Your task to perform on an android device: What's on my calendar tomorrow? Image 0: 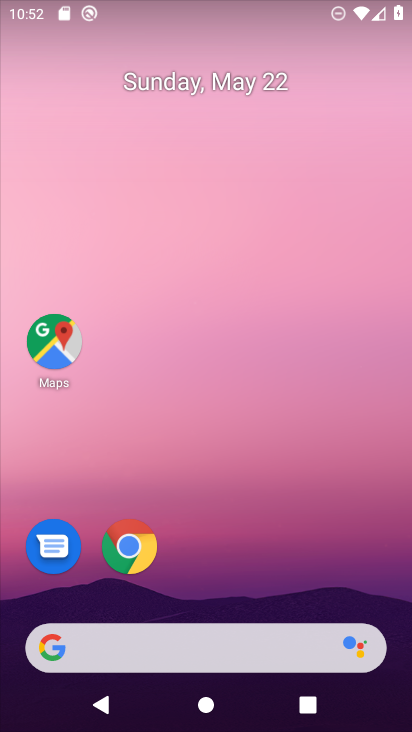
Step 0: drag from (184, 589) to (251, 43)
Your task to perform on an android device: What's on my calendar tomorrow? Image 1: 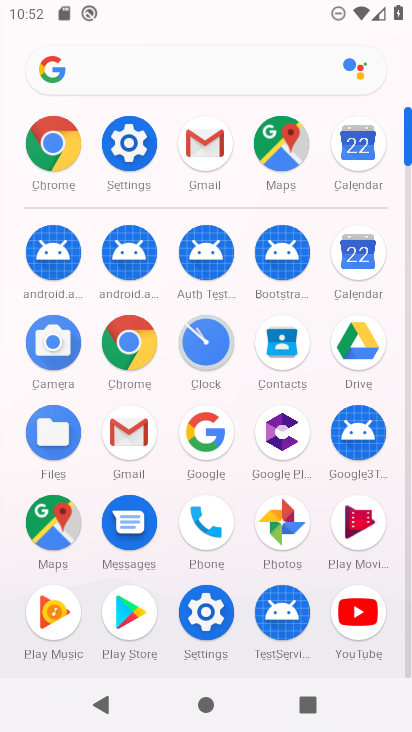
Step 1: click (360, 270)
Your task to perform on an android device: What's on my calendar tomorrow? Image 2: 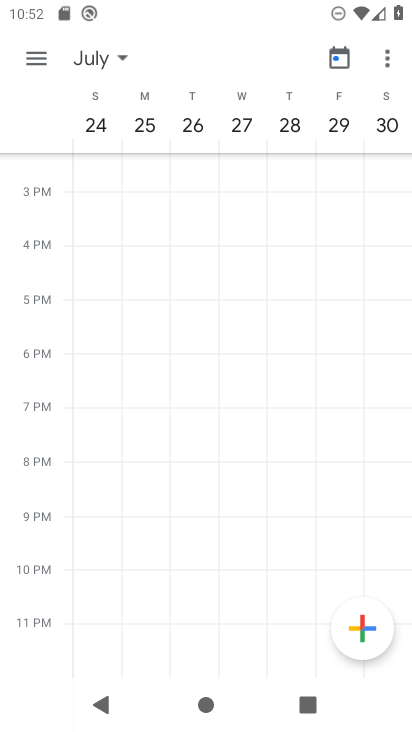
Step 2: drag from (88, 120) to (318, 129)
Your task to perform on an android device: What's on my calendar tomorrow? Image 3: 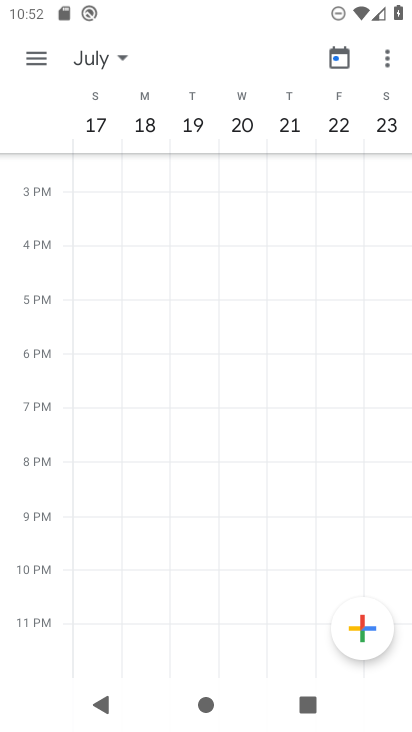
Step 3: click (103, 61)
Your task to perform on an android device: What's on my calendar tomorrow? Image 4: 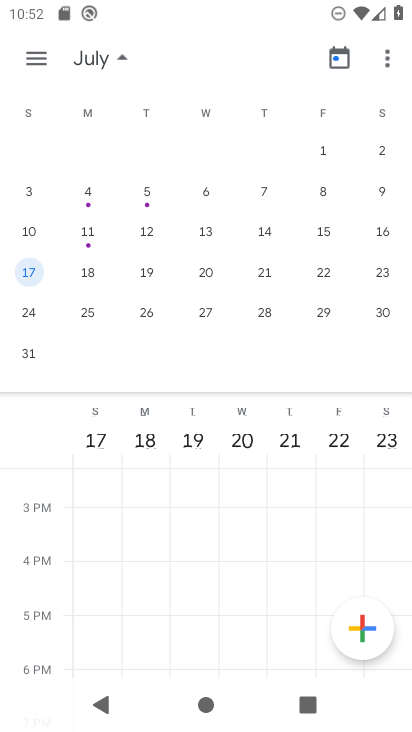
Step 4: drag from (118, 265) to (384, 350)
Your task to perform on an android device: What's on my calendar tomorrow? Image 5: 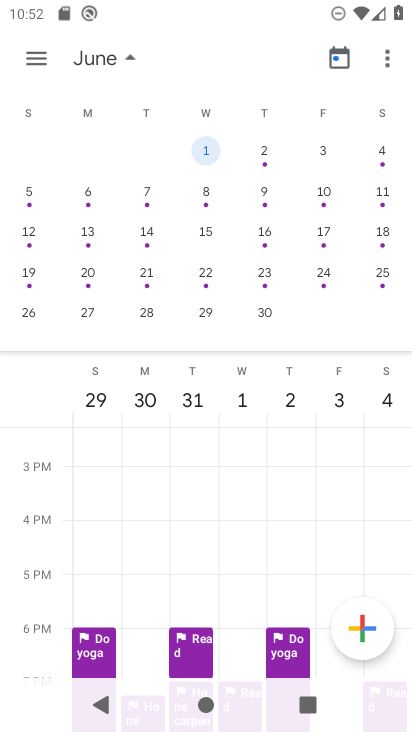
Step 5: drag from (92, 232) to (348, 269)
Your task to perform on an android device: What's on my calendar tomorrow? Image 6: 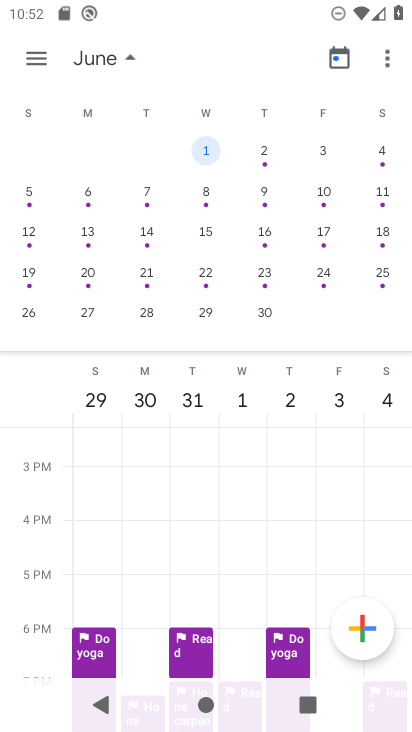
Step 6: drag from (64, 227) to (386, 219)
Your task to perform on an android device: What's on my calendar tomorrow? Image 7: 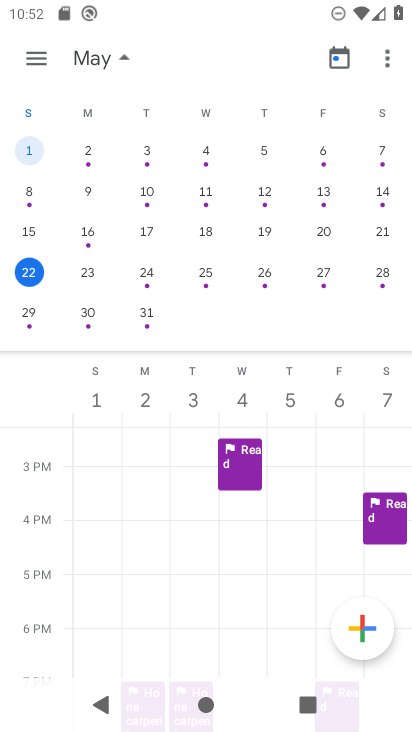
Step 7: click (27, 275)
Your task to perform on an android device: What's on my calendar tomorrow? Image 8: 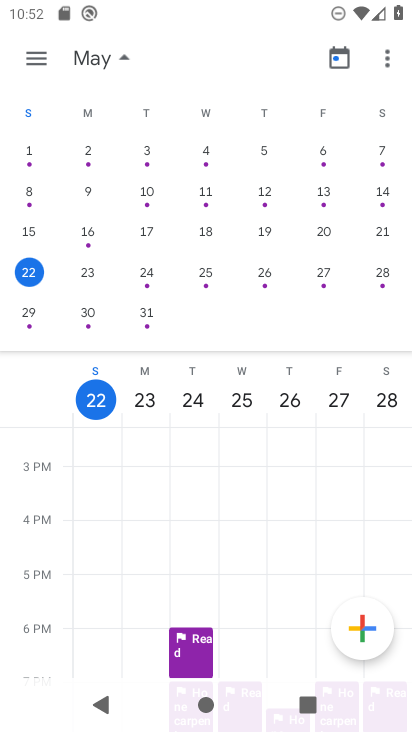
Step 8: click (36, 54)
Your task to perform on an android device: What's on my calendar tomorrow? Image 9: 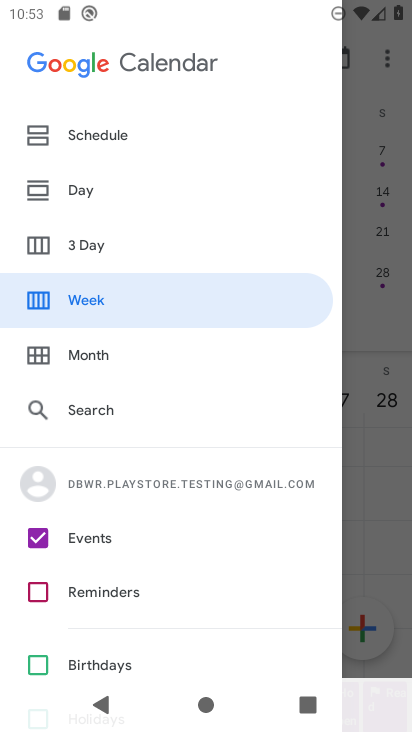
Step 9: click (89, 240)
Your task to perform on an android device: What's on my calendar tomorrow? Image 10: 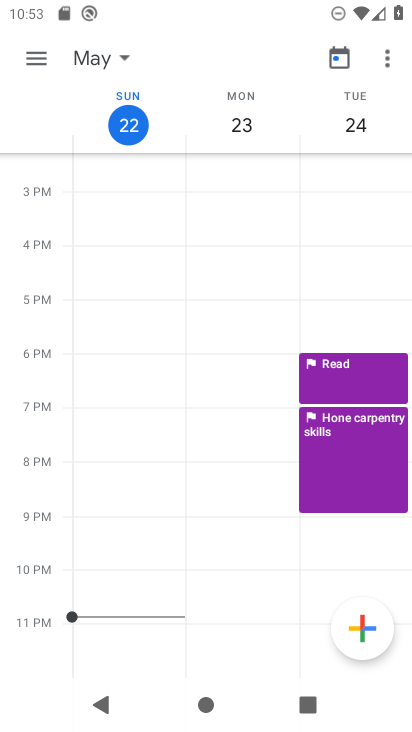
Step 10: task complete